Your task to perform on an android device: open app "Cash App" Image 0: 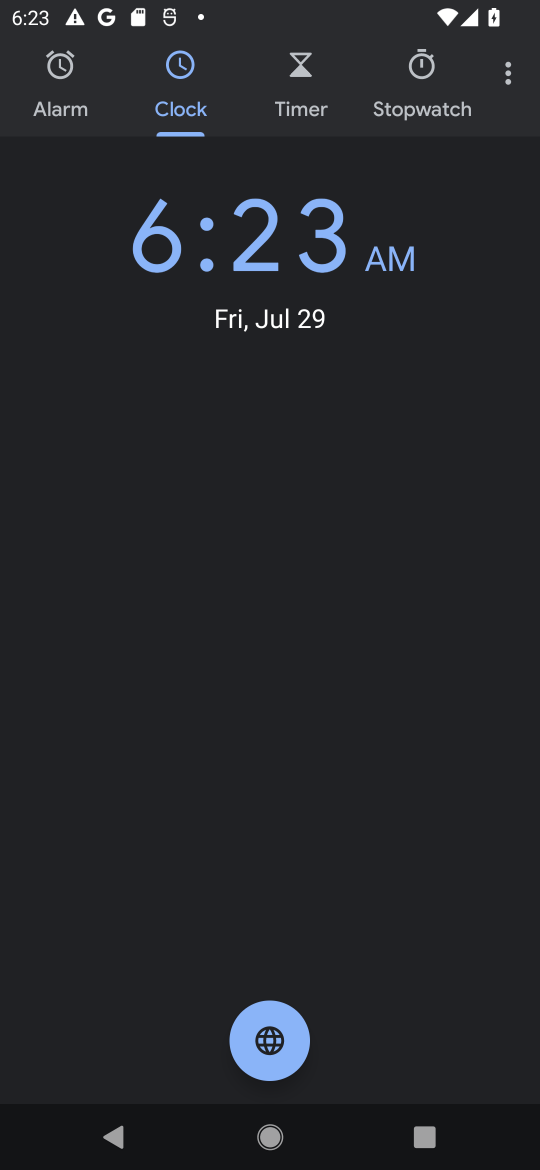
Step 0: press home button
Your task to perform on an android device: open app "Cash App" Image 1: 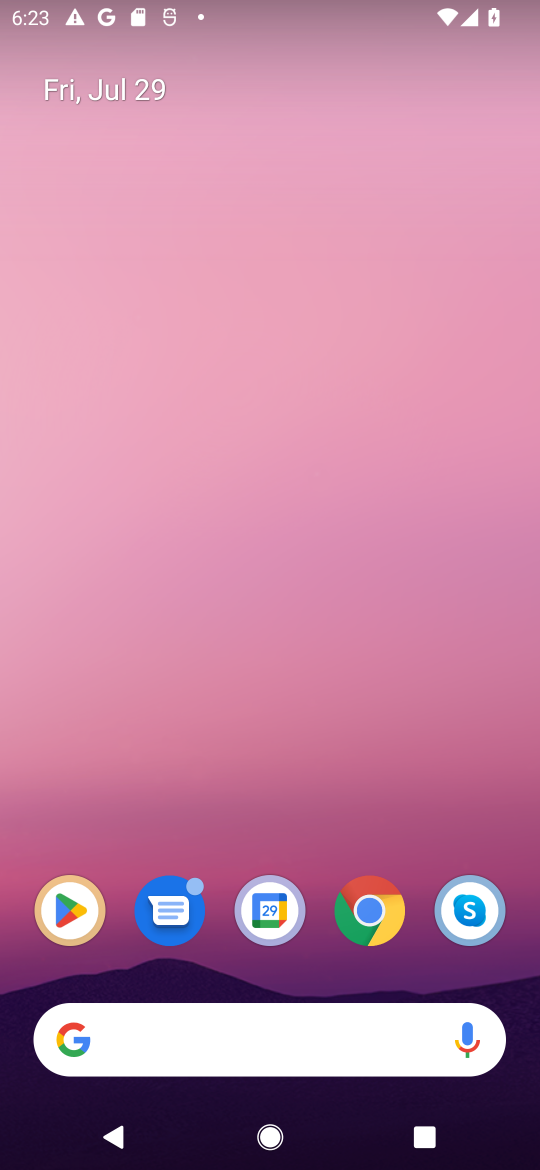
Step 1: drag from (236, 777) to (238, 418)
Your task to perform on an android device: open app "Cash App" Image 2: 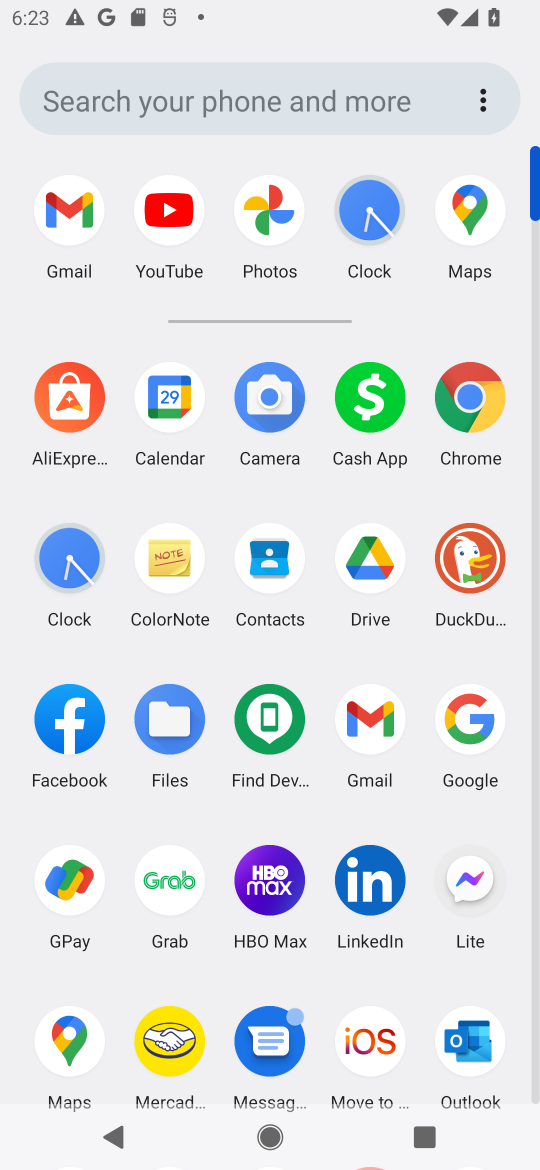
Step 2: drag from (329, 985) to (330, 508)
Your task to perform on an android device: open app "Cash App" Image 3: 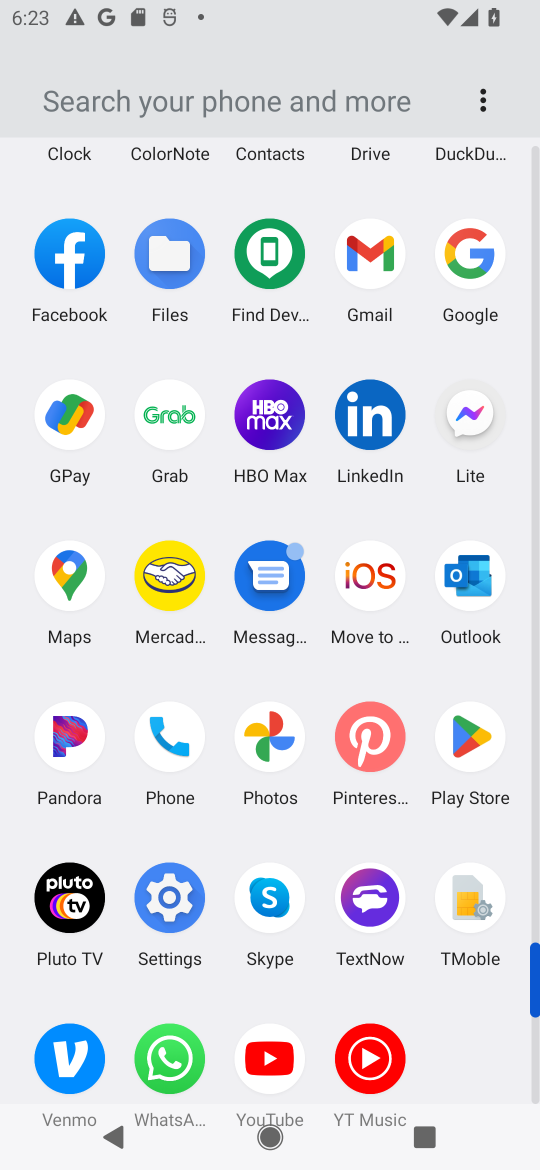
Step 3: click (464, 753)
Your task to perform on an android device: open app "Cash App" Image 4: 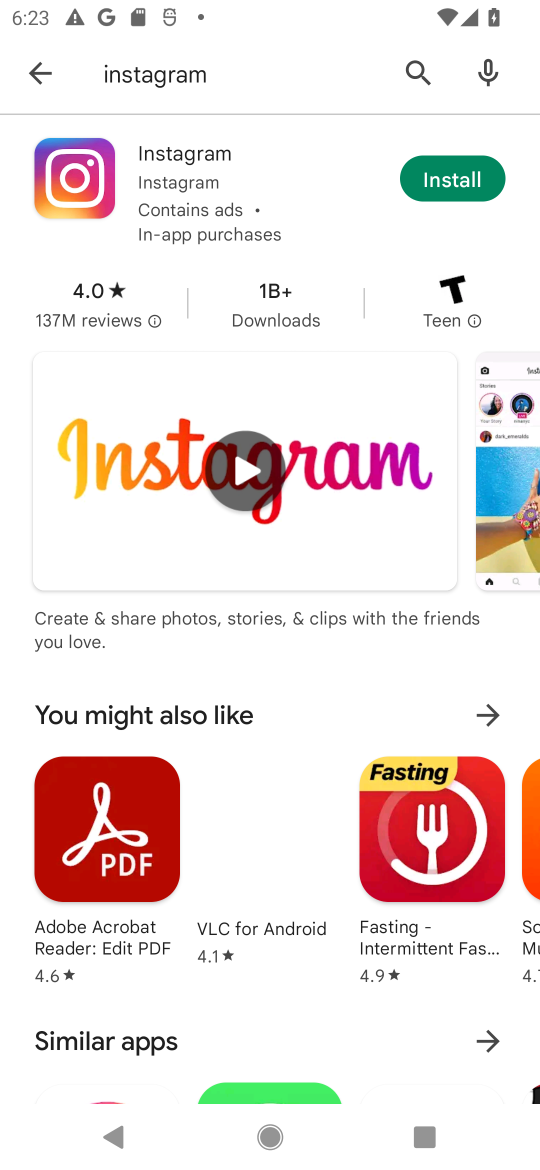
Step 4: click (419, 69)
Your task to perform on an android device: open app "Cash App" Image 5: 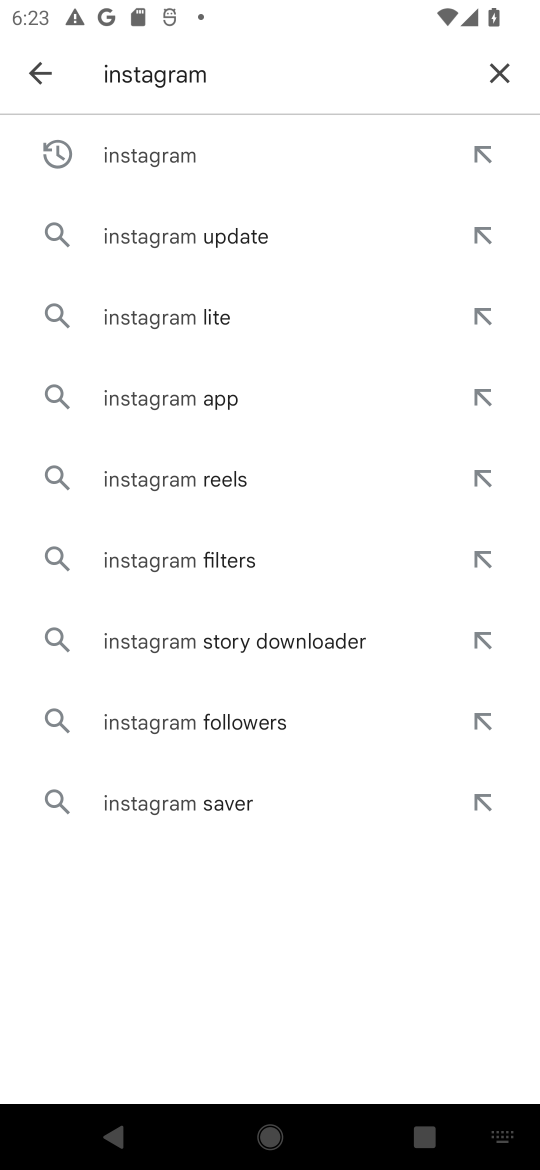
Step 5: click (499, 76)
Your task to perform on an android device: open app "Cash App" Image 6: 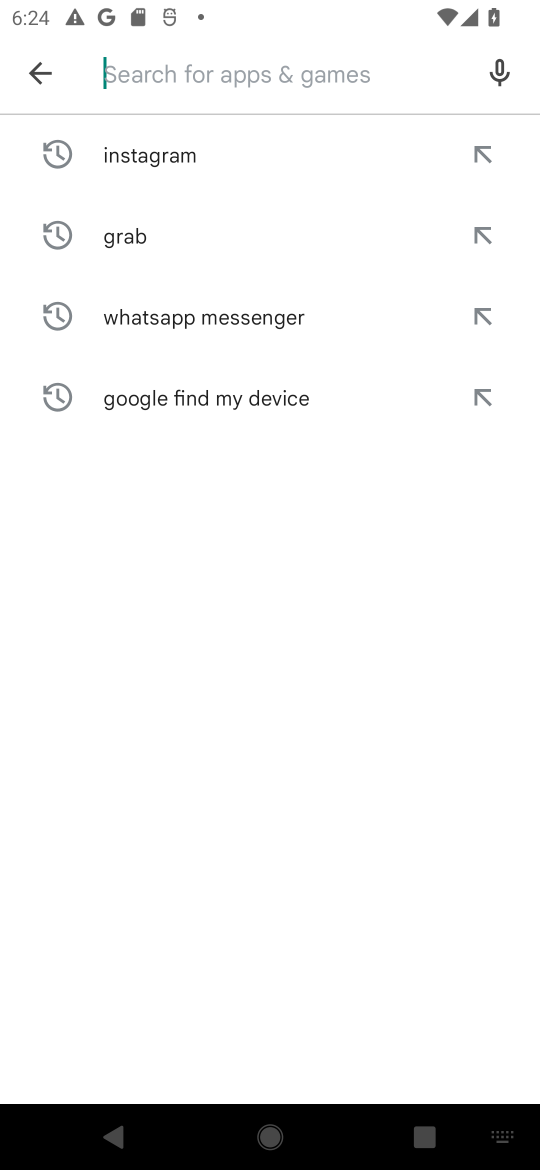
Step 6: type "Cash App"
Your task to perform on an android device: open app "Cash App" Image 7: 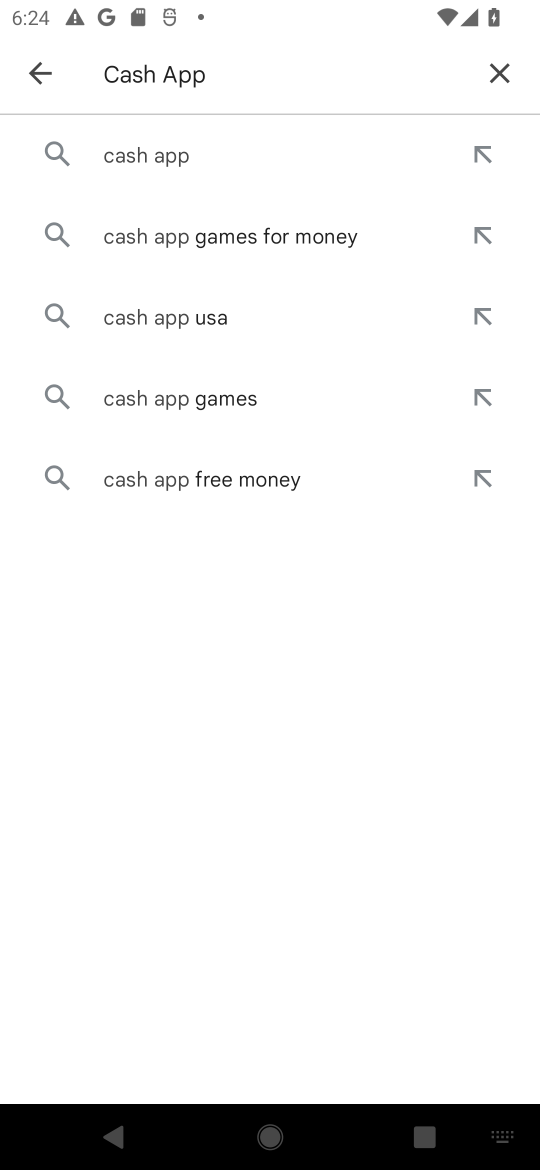
Step 7: click (167, 152)
Your task to perform on an android device: open app "Cash App" Image 8: 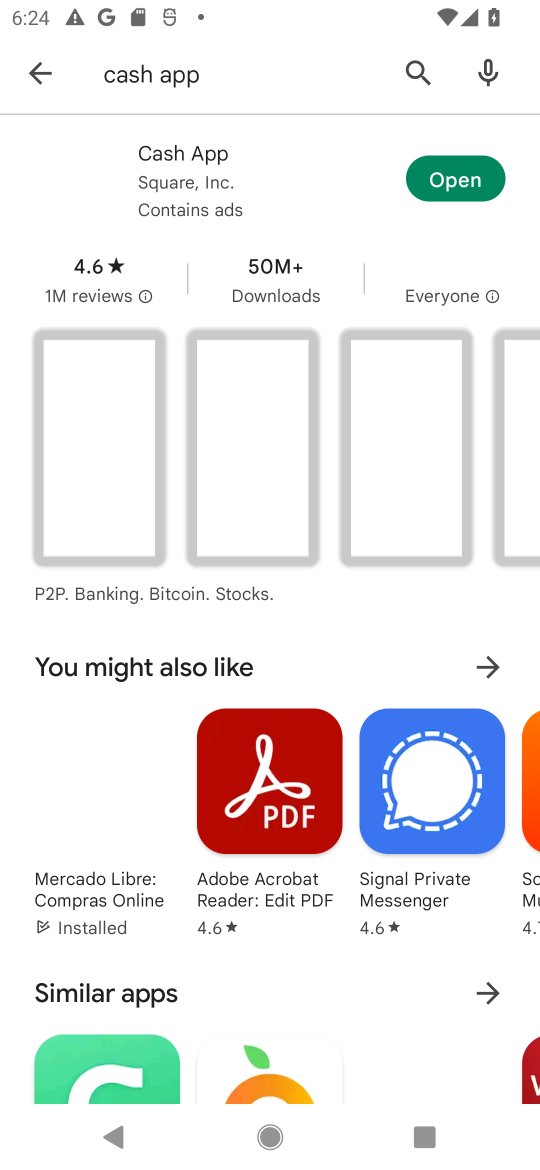
Step 8: click (460, 179)
Your task to perform on an android device: open app "Cash App" Image 9: 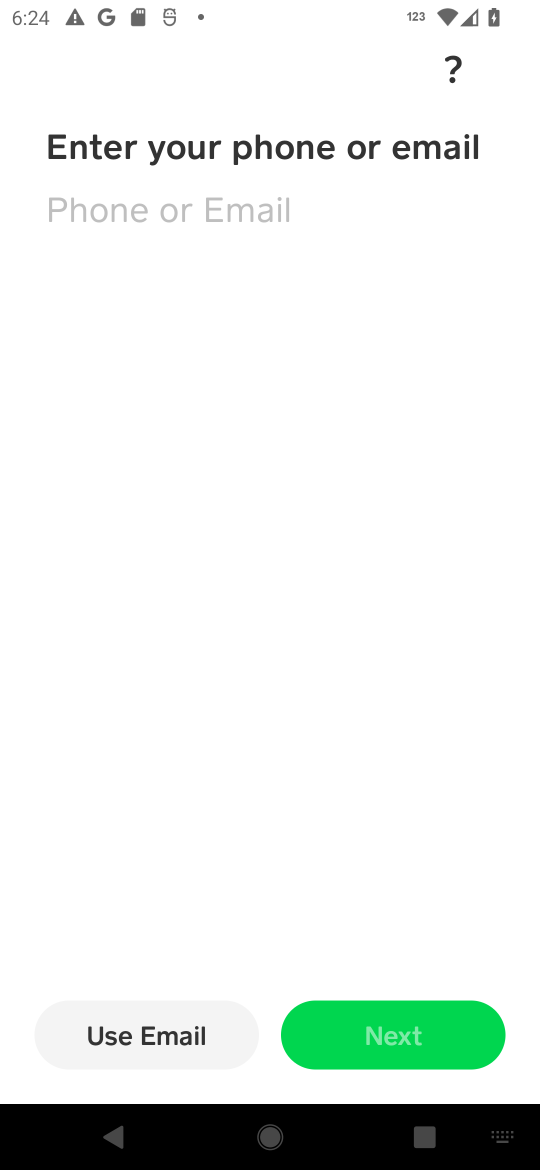
Step 9: task complete